Your task to perform on an android device: add a contact in the contacts app Image 0: 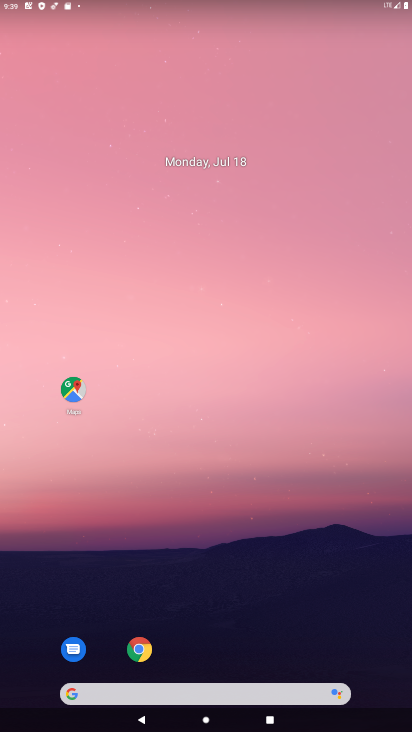
Step 0: drag from (183, 693) to (233, 0)
Your task to perform on an android device: add a contact in the contacts app Image 1: 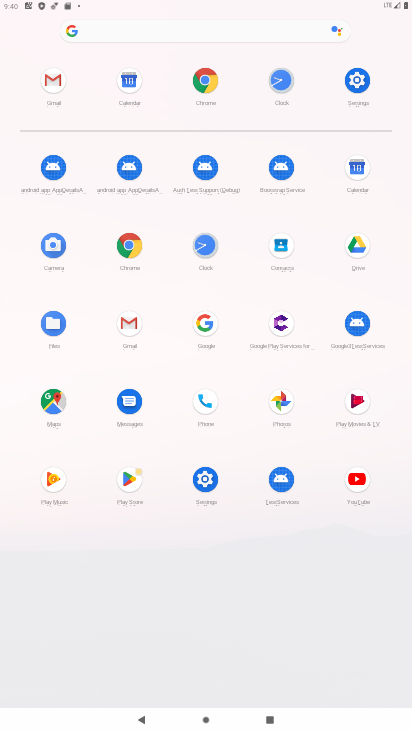
Step 1: click (283, 250)
Your task to perform on an android device: add a contact in the contacts app Image 2: 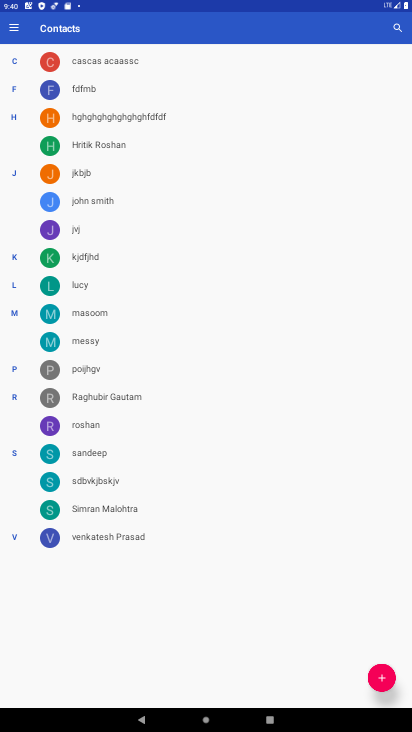
Step 2: click (382, 674)
Your task to perform on an android device: add a contact in the contacts app Image 3: 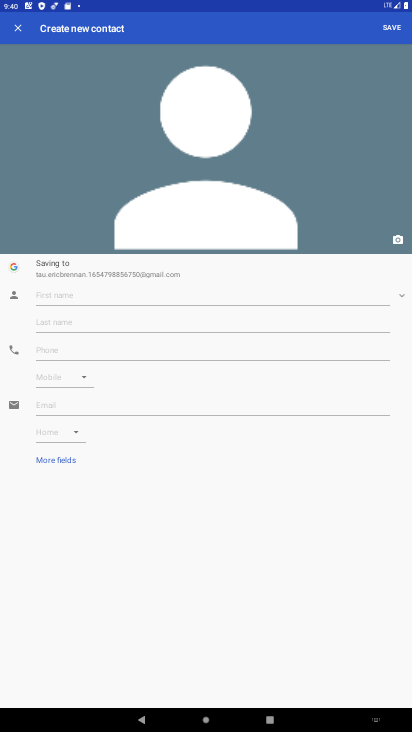
Step 3: click (129, 318)
Your task to perform on an android device: add a contact in the contacts app Image 4: 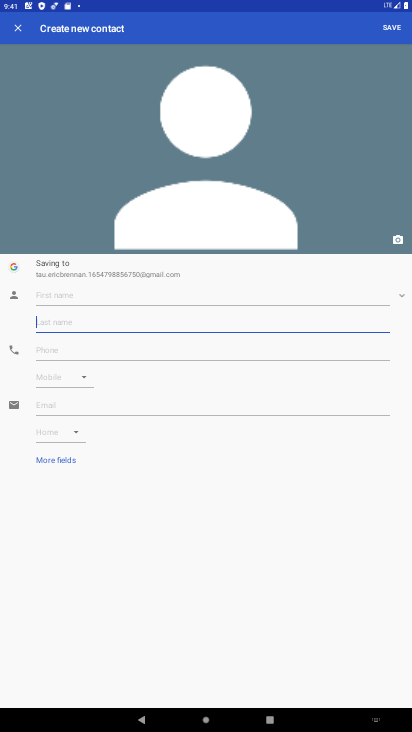
Step 4: click (55, 294)
Your task to perform on an android device: add a contact in the contacts app Image 5: 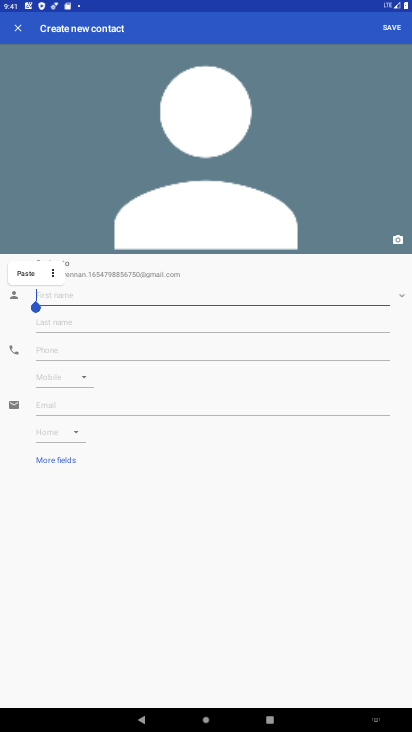
Step 5: type "ncgmh"
Your task to perform on an android device: add a contact in the contacts app Image 6: 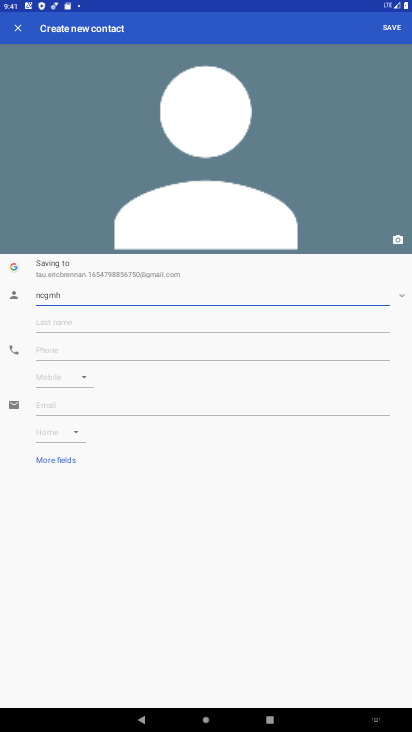
Step 6: click (57, 346)
Your task to perform on an android device: add a contact in the contacts app Image 7: 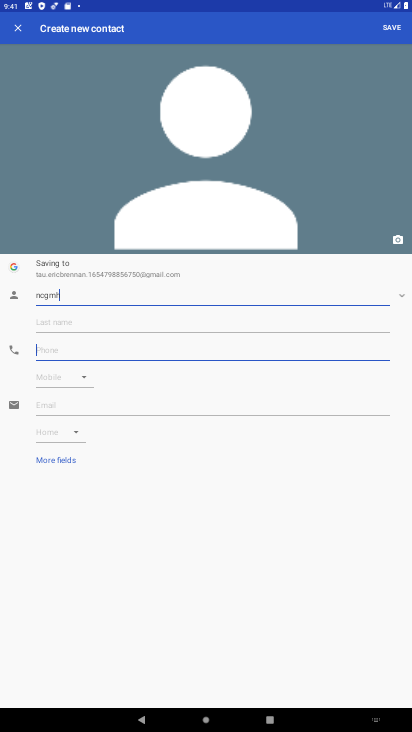
Step 7: click (57, 346)
Your task to perform on an android device: add a contact in the contacts app Image 8: 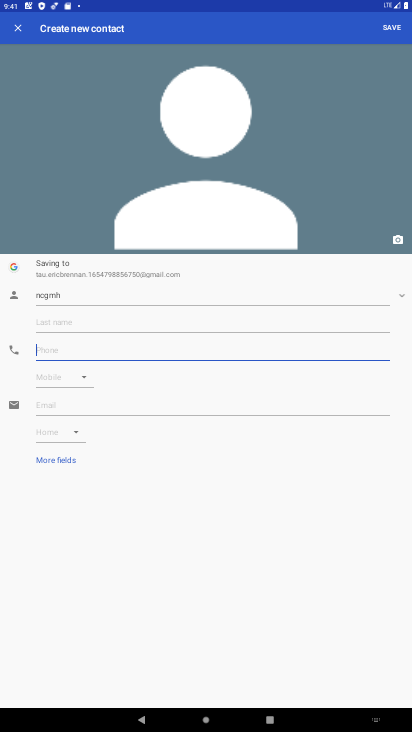
Step 8: type "yu778"
Your task to perform on an android device: add a contact in the contacts app Image 9: 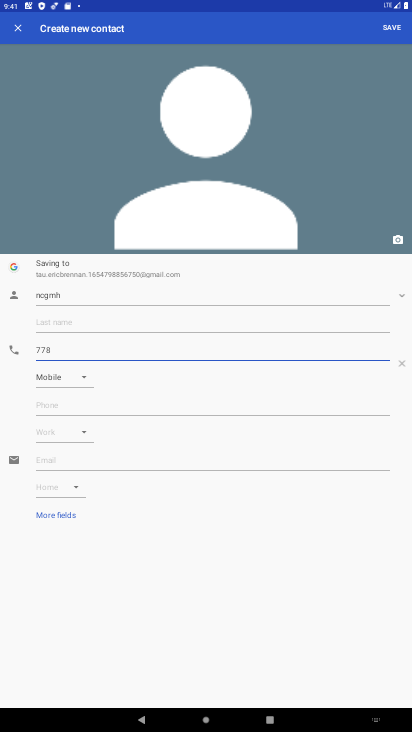
Step 9: click (404, 28)
Your task to perform on an android device: add a contact in the contacts app Image 10: 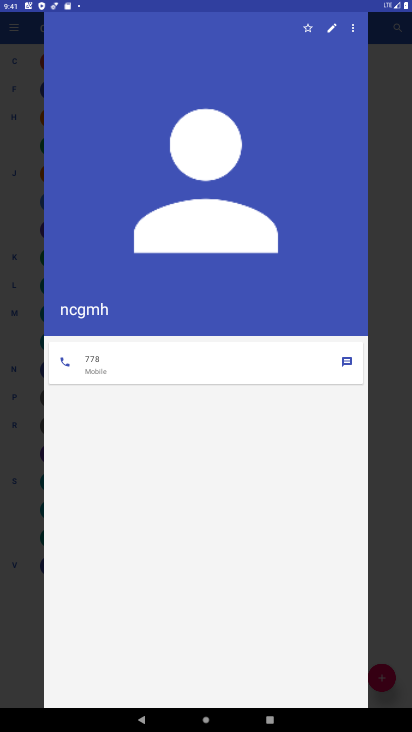
Step 10: task complete